Your task to perform on an android device: Search for pizza restaurants on Maps Image 0: 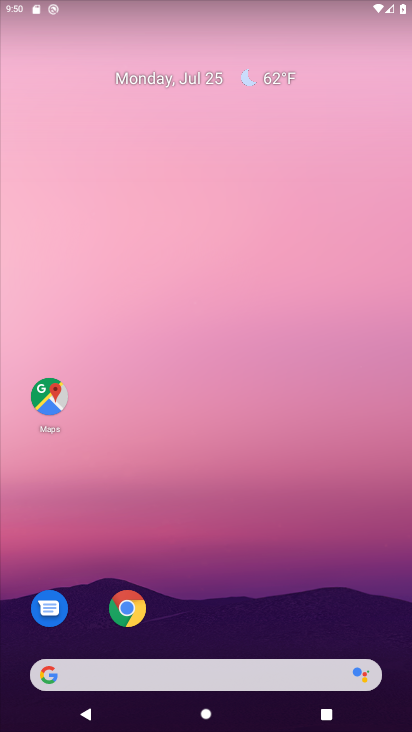
Step 0: press home button
Your task to perform on an android device: Search for pizza restaurants on Maps Image 1: 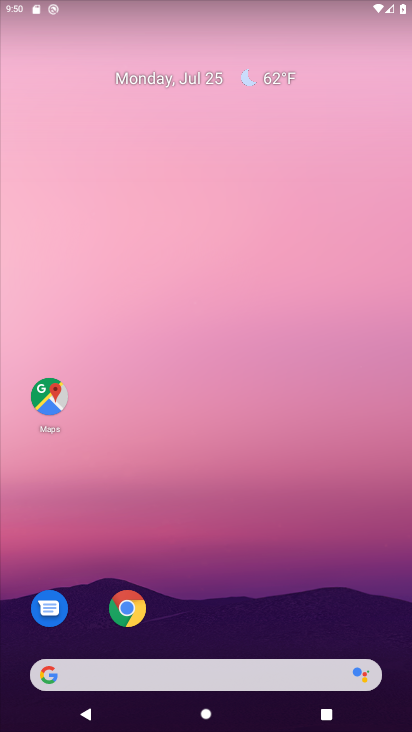
Step 1: click (50, 392)
Your task to perform on an android device: Search for pizza restaurants on Maps Image 2: 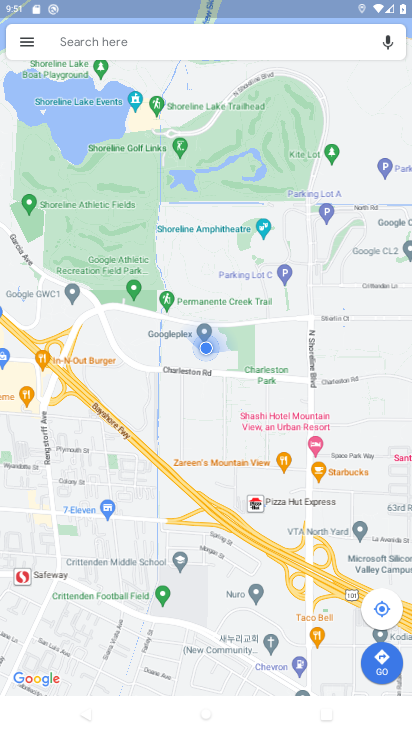
Step 2: click (135, 41)
Your task to perform on an android device: Search for pizza restaurants on Maps Image 3: 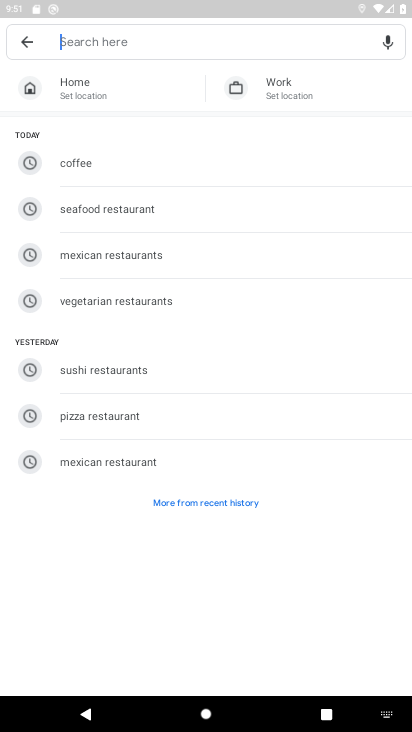
Step 3: click (142, 412)
Your task to perform on an android device: Search for pizza restaurants on Maps Image 4: 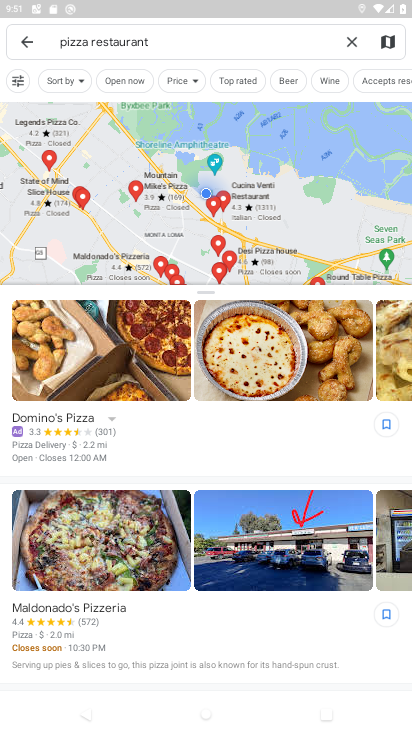
Step 4: task complete